Your task to perform on an android device: turn off translation in the chrome app Image 0: 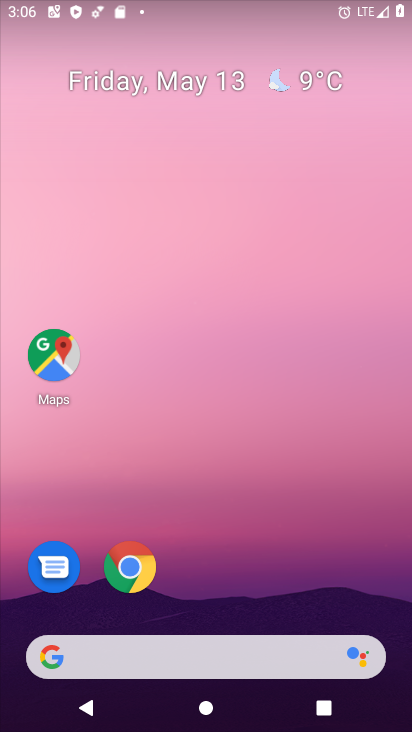
Step 0: click (146, 566)
Your task to perform on an android device: turn off translation in the chrome app Image 1: 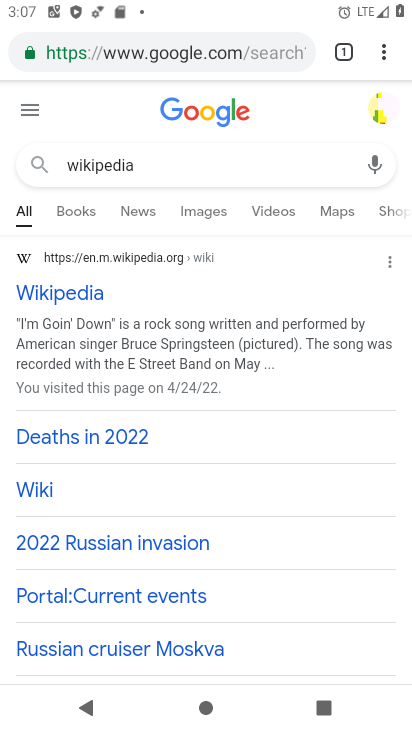
Step 1: click (393, 50)
Your task to perform on an android device: turn off translation in the chrome app Image 2: 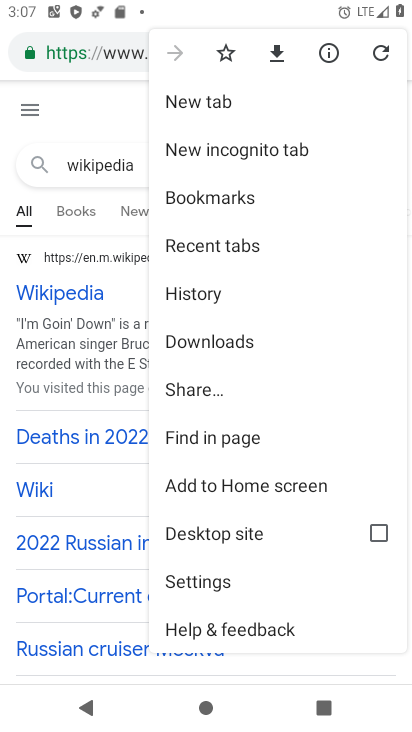
Step 2: click (226, 588)
Your task to perform on an android device: turn off translation in the chrome app Image 3: 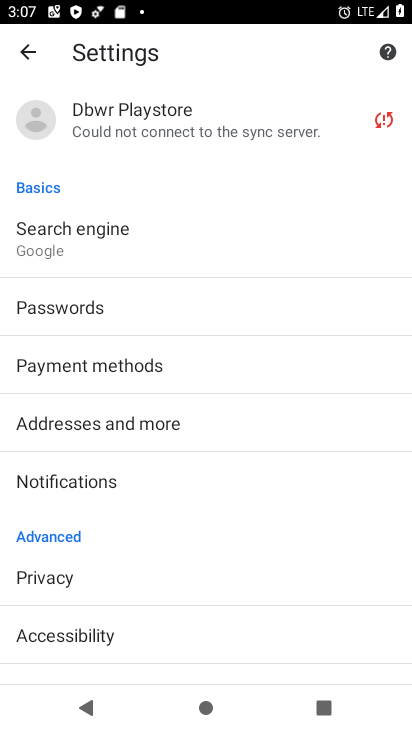
Step 3: drag from (99, 536) to (184, 169)
Your task to perform on an android device: turn off translation in the chrome app Image 4: 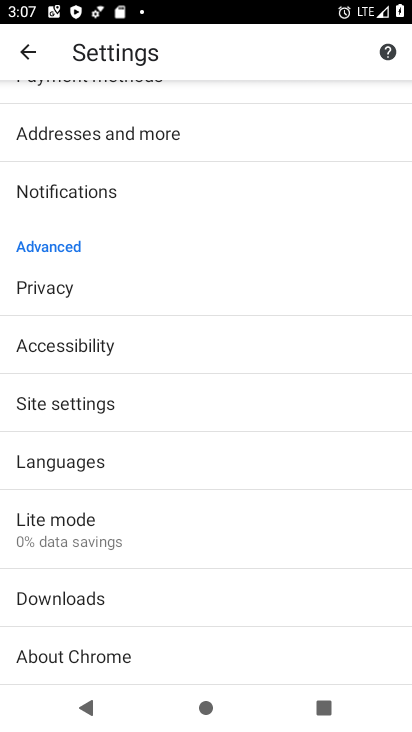
Step 4: click (71, 471)
Your task to perform on an android device: turn off translation in the chrome app Image 5: 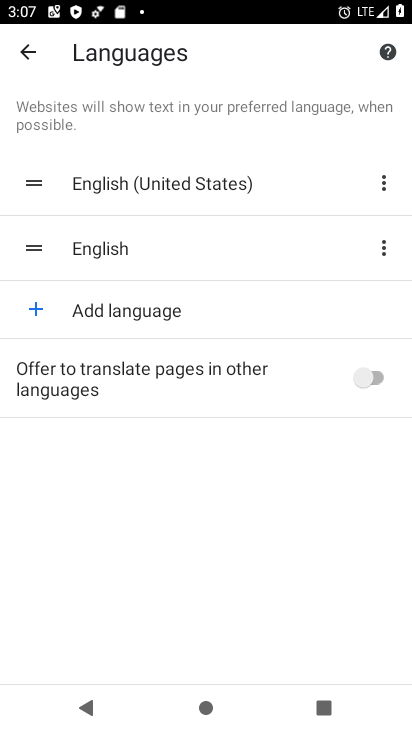
Step 5: task complete